Your task to perform on an android device: toggle pop-ups in chrome Image 0: 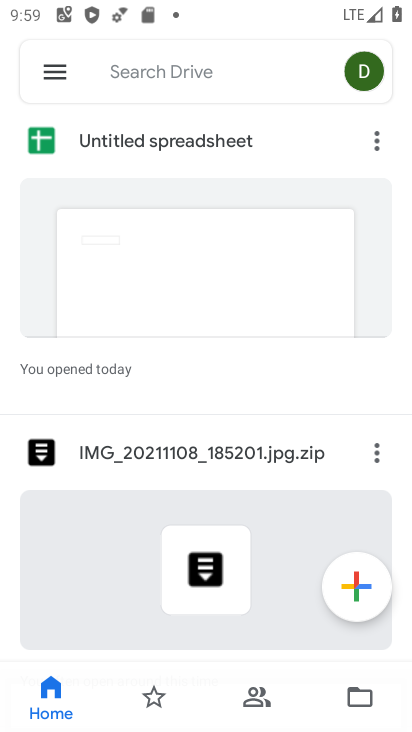
Step 0: press home button
Your task to perform on an android device: toggle pop-ups in chrome Image 1: 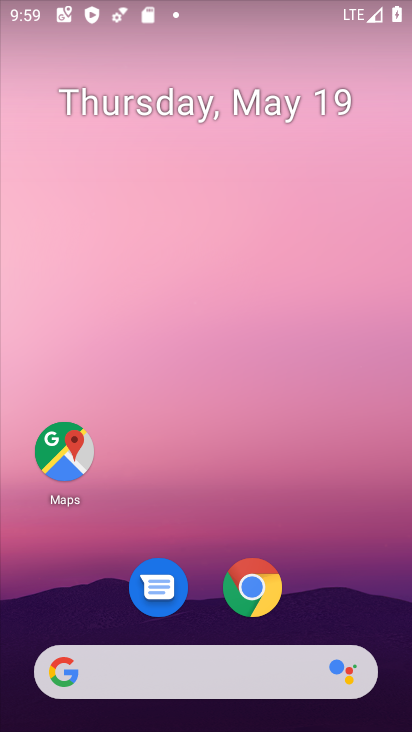
Step 1: click (261, 586)
Your task to perform on an android device: toggle pop-ups in chrome Image 2: 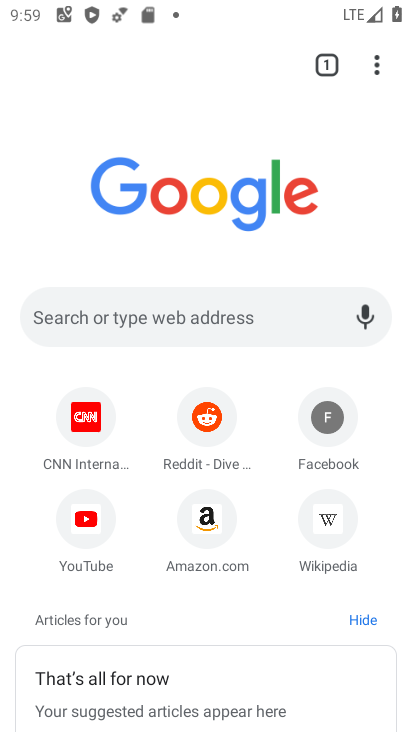
Step 2: click (387, 66)
Your task to perform on an android device: toggle pop-ups in chrome Image 3: 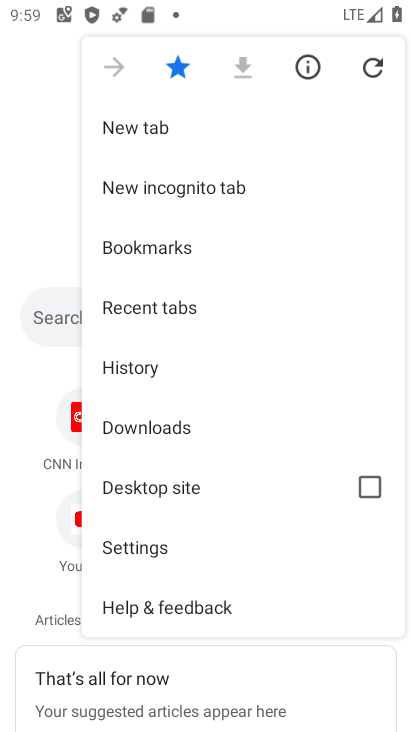
Step 3: click (179, 555)
Your task to perform on an android device: toggle pop-ups in chrome Image 4: 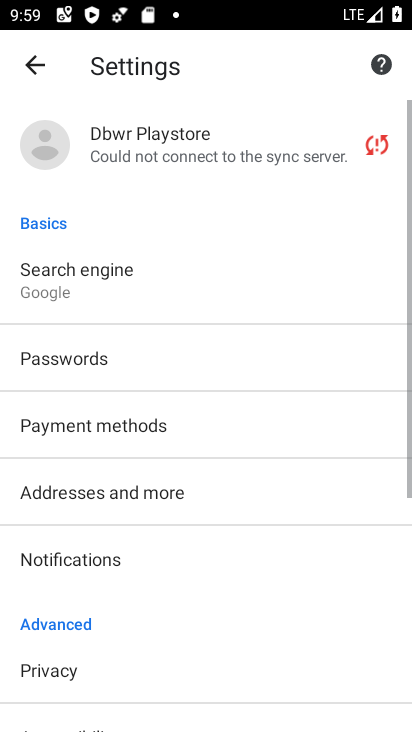
Step 4: drag from (179, 555) to (192, 174)
Your task to perform on an android device: toggle pop-ups in chrome Image 5: 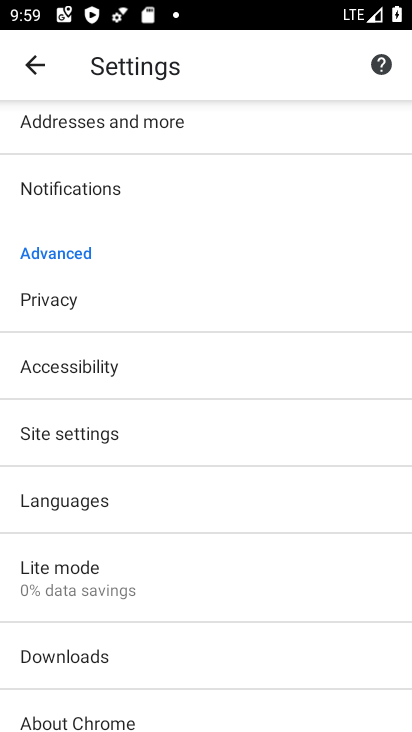
Step 5: drag from (121, 636) to (140, 151)
Your task to perform on an android device: toggle pop-ups in chrome Image 6: 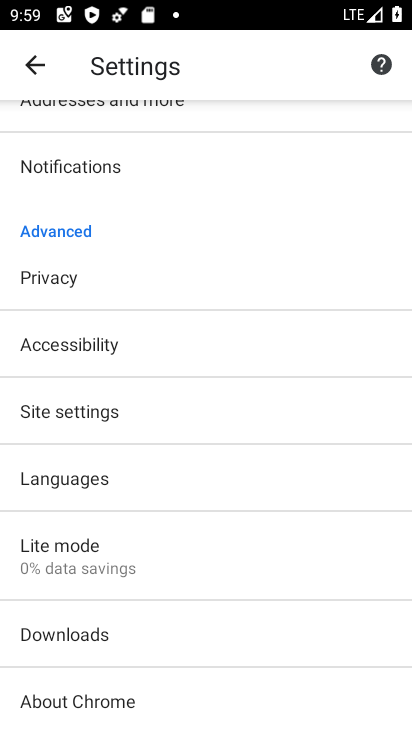
Step 6: click (169, 408)
Your task to perform on an android device: toggle pop-ups in chrome Image 7: 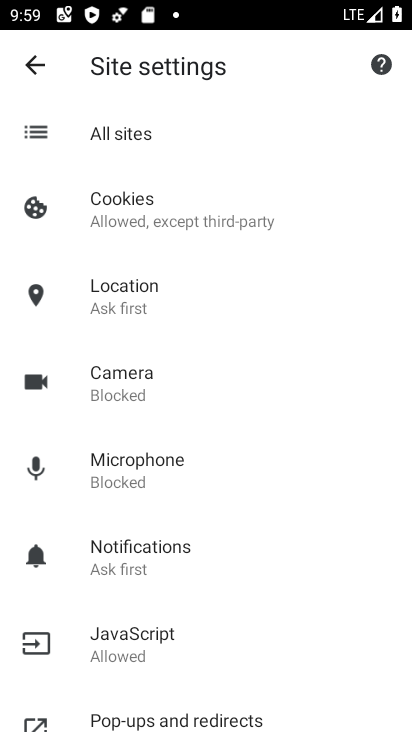
Step 7: click (157, 720)
Your task to perform on an android device: toggle pop-ups in chrome Image 8: 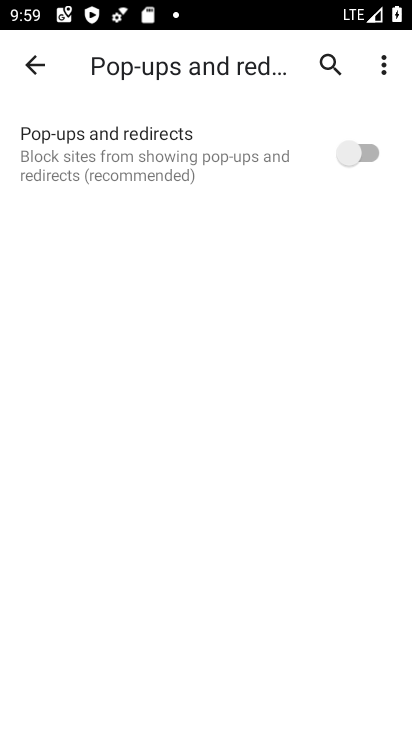
Step 8: click (373, 146)
Your task to perform on an android device: toggle pop-ups in chrome Image 9: 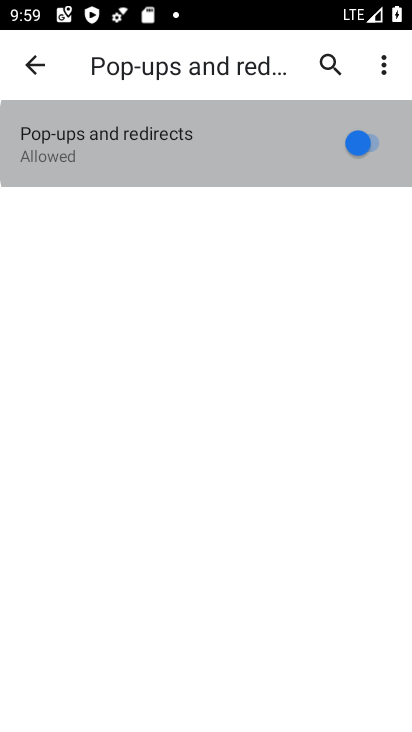
Step 9: click (373, 146)
Your task to perform on an android device: toggle pop-ups in chrome Image 10: 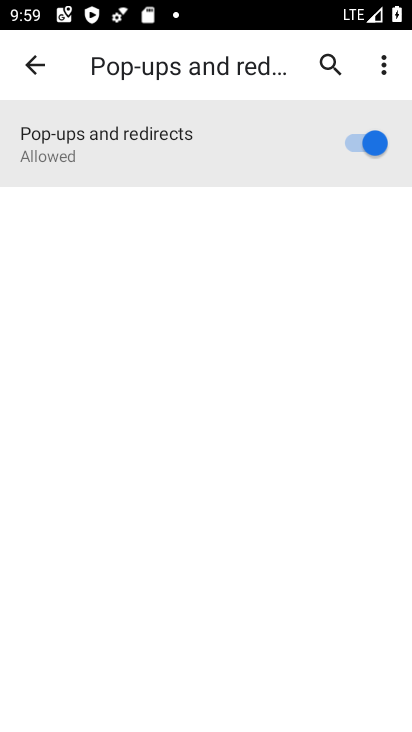
Step 10: click (373, 146)
Your task to perform on an android device: toggle pop-ups in chrome Image 11: 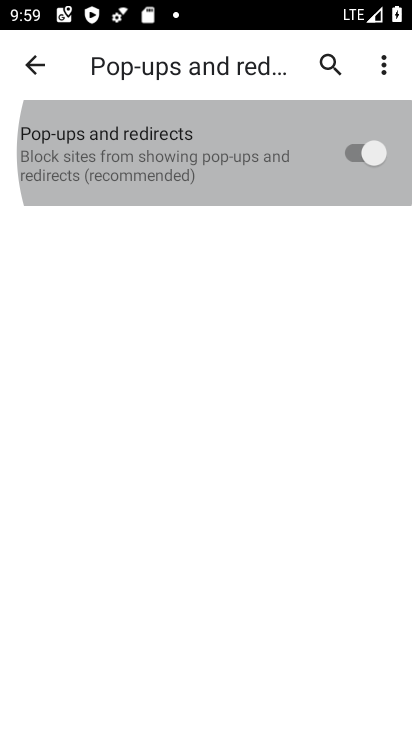
Step 11: click (373, 146)
Your task to perform on an android device: toggle pop-ups in chrome Image 12: 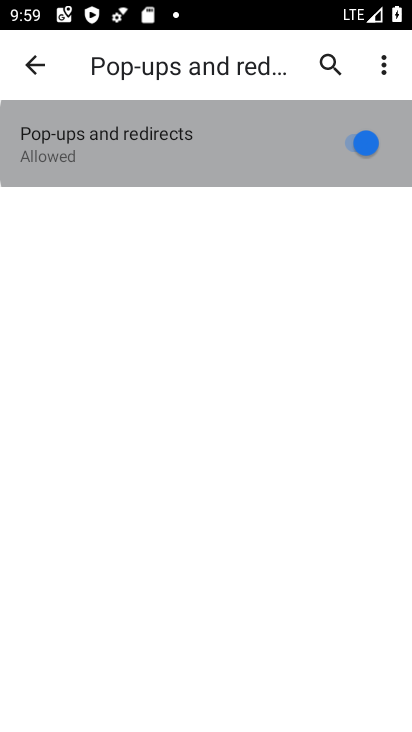
Step 12: click (373, 146)
Your task to perform on an android device: toggle pop-ups in chrome Image 13: 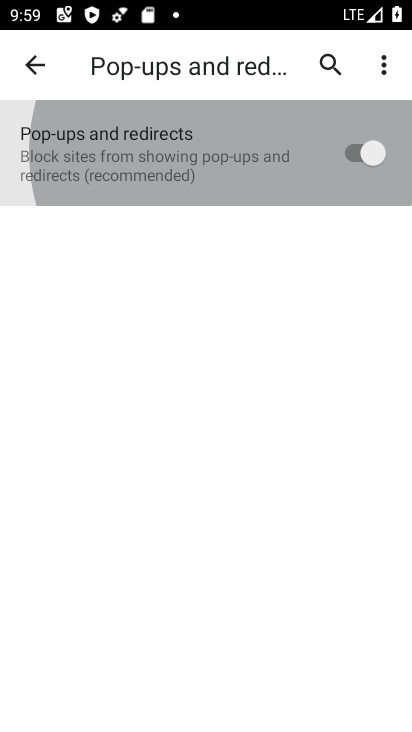
Step 13: click (373, 146)
Your task to perform on an android device: toggle pop-ups in chrome Image 14: 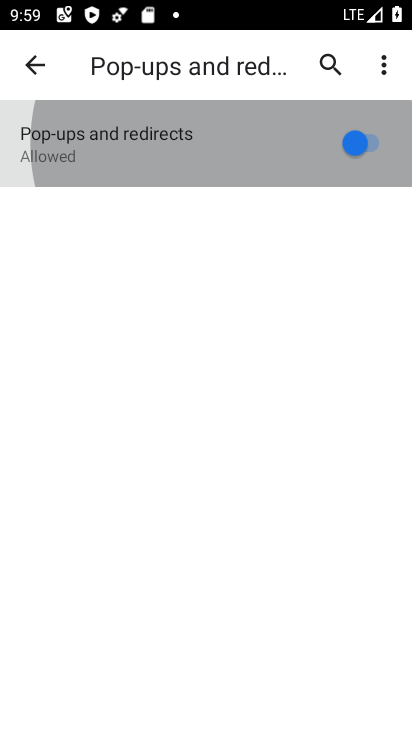
Step 14: click (373, 146)
Your task to perform on an android device: toggle pop-ups in chrome Image 15: 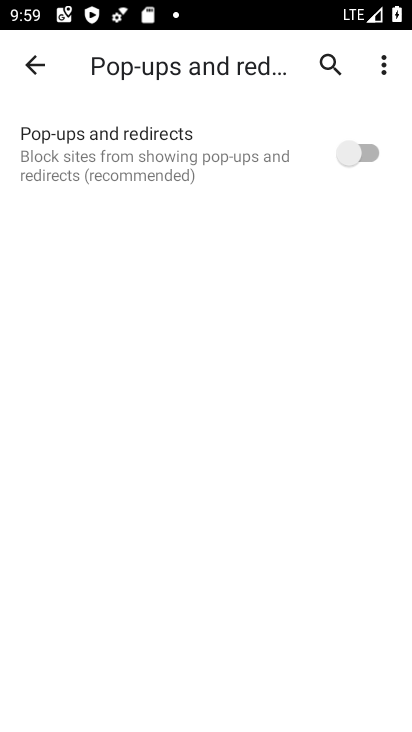
Step 15: task complete